Your task to perform on an android device: Open battery settings Image 0: 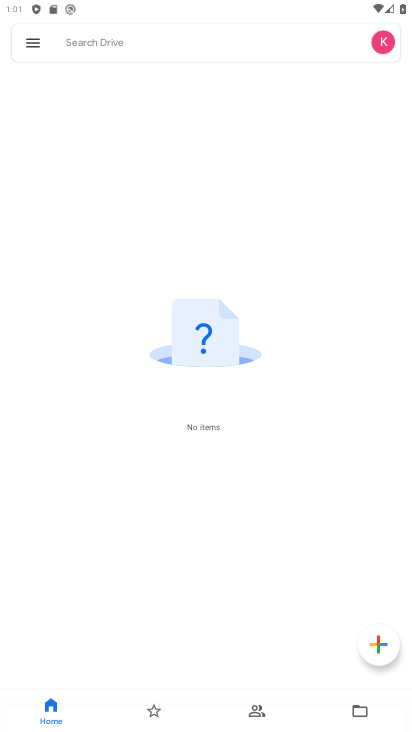
Step 0: press home button
Your task to perform on an android device: Open battery settings Image 1: 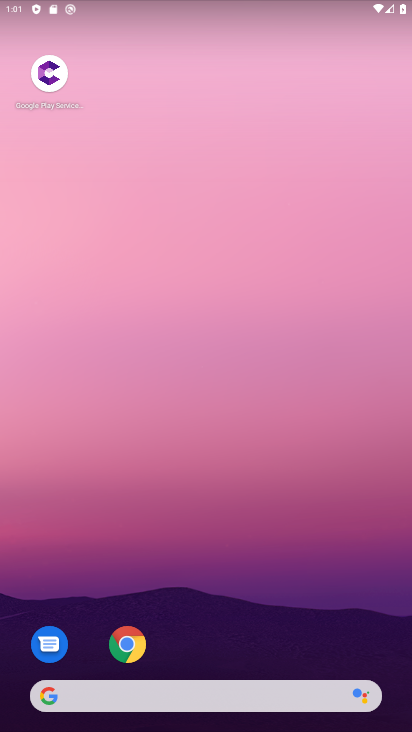
Step 1: drag from (181, 681) to (134, 99)
Your task to perform on an android device: Open battery settings Image 2: 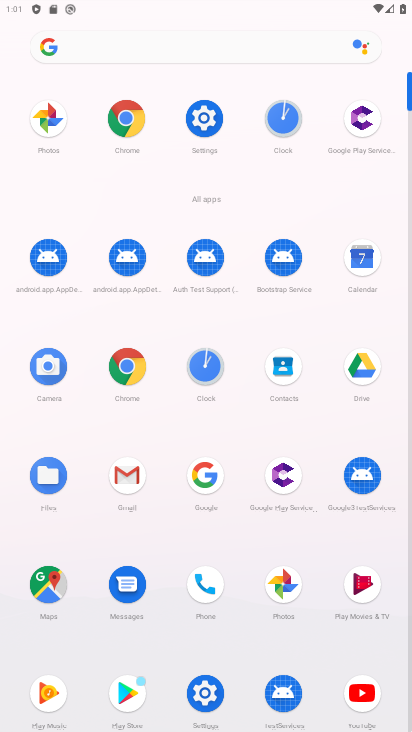
Step 2: click (212, 109)
Your task to perform on an android device: Open battery settings Image 3: 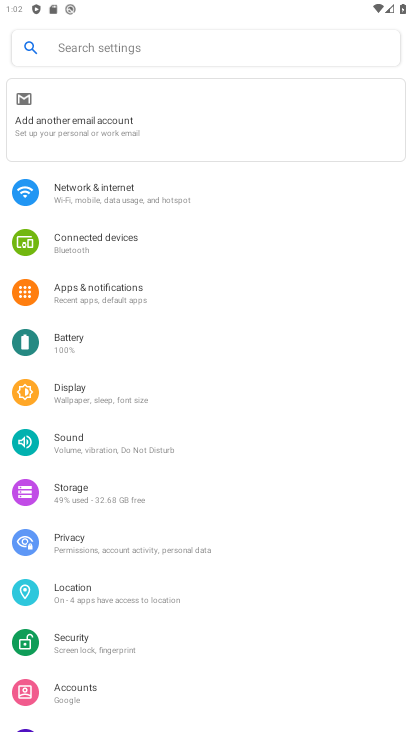
Step 3: click (102, 349)
Your task to perform on an android device: Open battery settings Image 4: 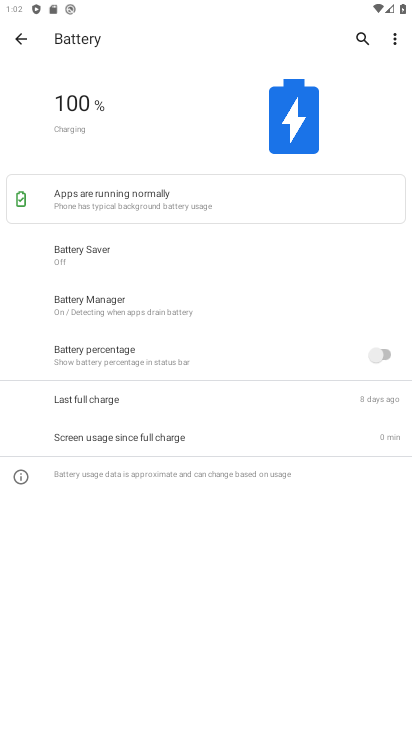
Step 4: task complete